Your task to perform on an android device: empty trash in google photos Image 0: 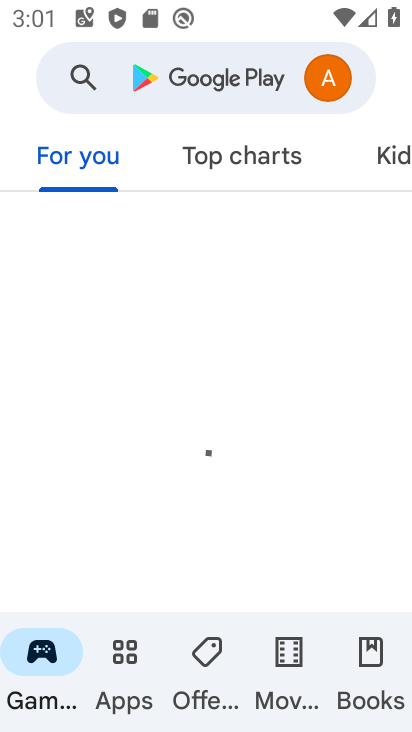
Step 0: press home button
Your task to perform on an android device: empty trash in google photos Image 1: 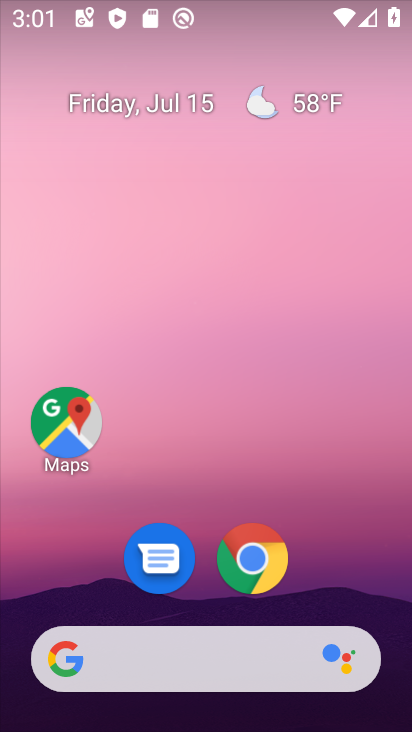
Step 1: drag from (356, 587) to (363, 160)
Your task to perform on an android device: empty trash in google photos Image 2: 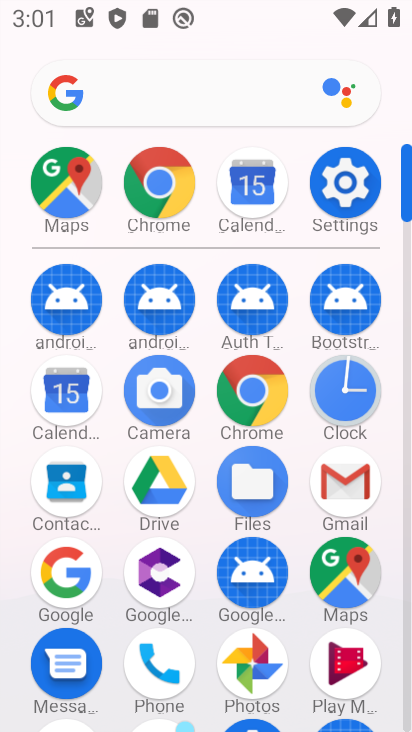
Step 2: click (264, 654)
Your task to perform on an android device: empty trash in google photos Image 3: 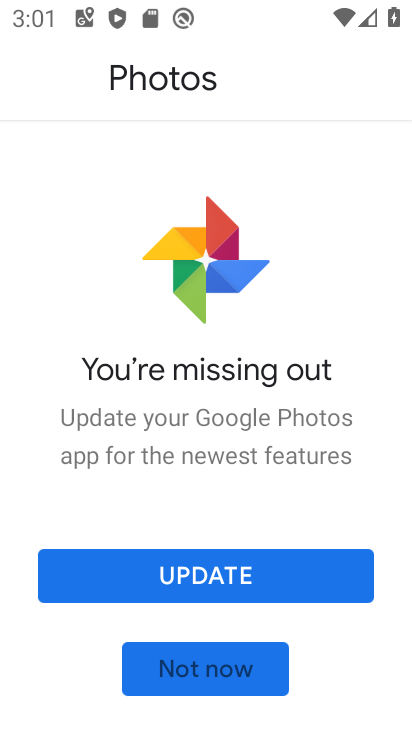
Step 3: click (268, 589)
Your task to perform on an android device: empty trash in google photos Image 4: 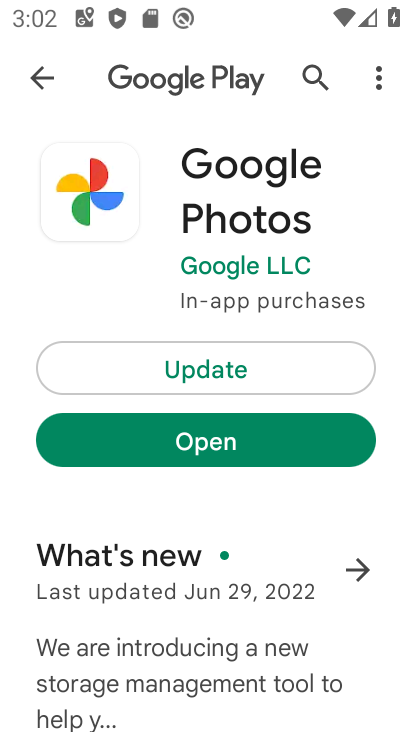
Step 4: click (241, 368)
Your task to perform on an android device: empty trash in google photos Image 5: 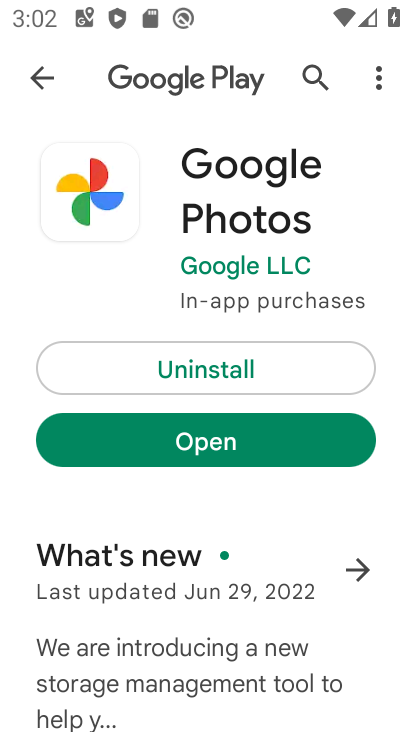
Step 5: click (278, 446)
Your task to perform on an android device: empty trash in google photos Image 6: 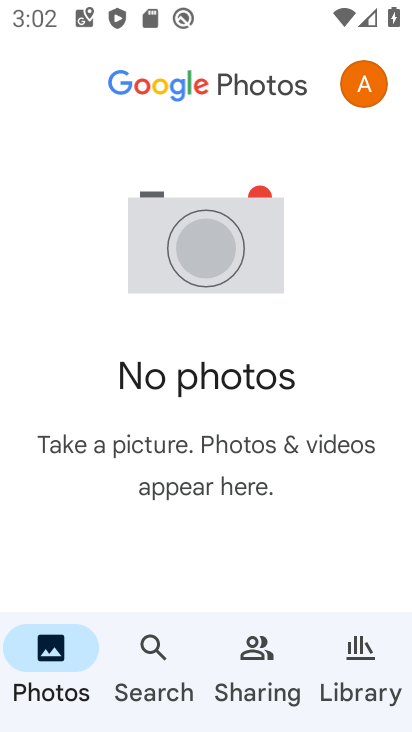
Step 6: click (369, 685)
Your task to perform on an android device: empty trash in google photos Image 7: 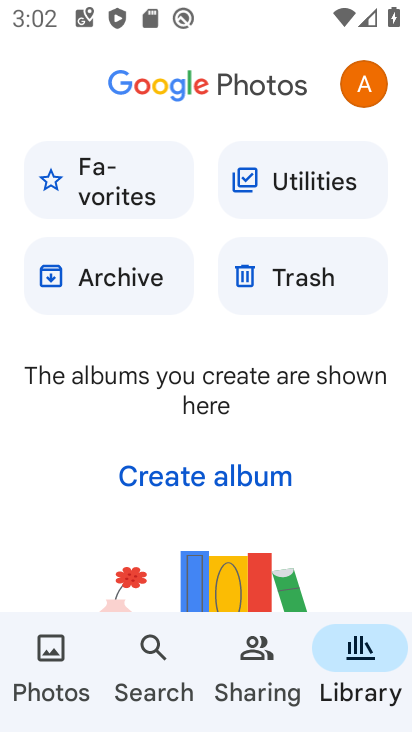
Step 7: click (304, 288)
Your task to perform on an android device: empty trash in google photos Image 8: 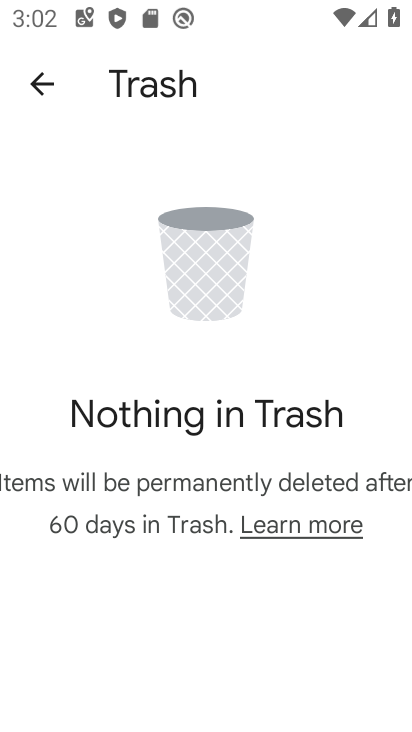
Step 8: task complete